Your task to perform on an android device: turn on the 24-hour format for clock Image 0: 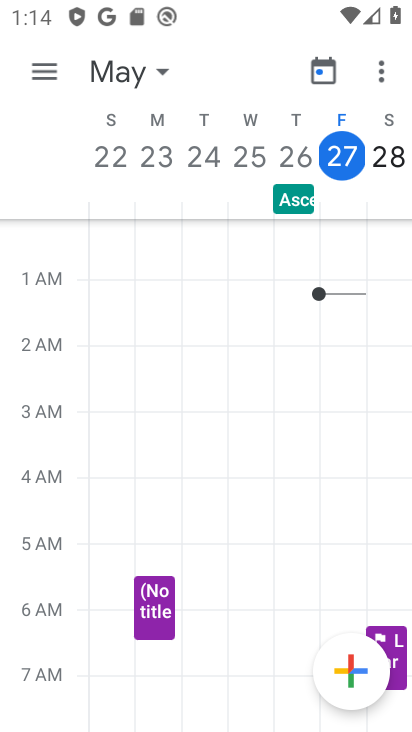
Step 0: press back button
Your task to perform on an android device: turn on the 24-hour format for clock Image 1: 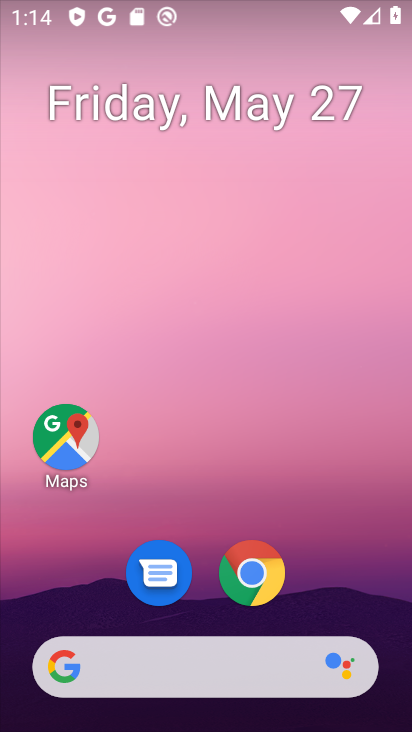
Step 1: drag from (190, 617) to (184, 35)
Your task to perform on an android device: turn on the 24-hour format for clock Image 2: 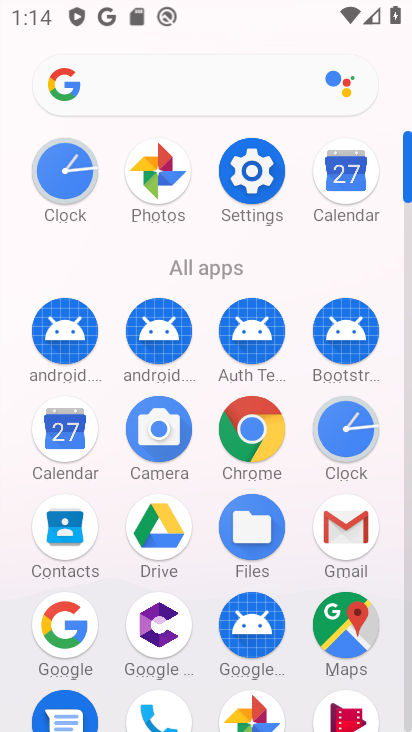
Step 2: click (337, 439)
Your task to perform on an android device: turn on the 24-hour format for clock Image 3: 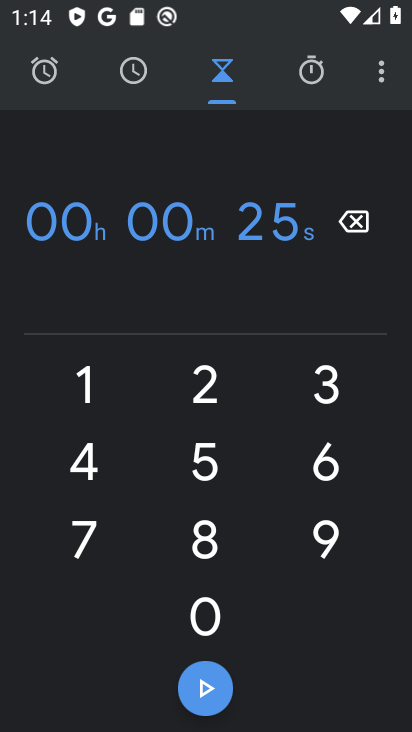
Step 3: click (368, 71)
Your task to perform on an android device: turn on the 24-hour format for clock Image 4: 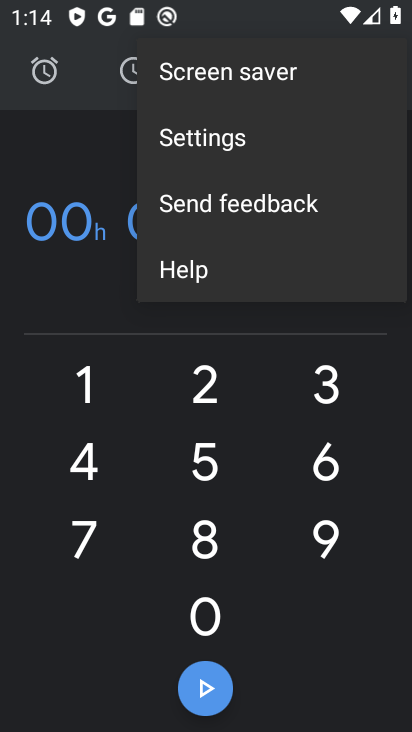
Step 4: click (216, 135)
Your task to perform on an android device: turn on the 24-hour format for clock Image 5: 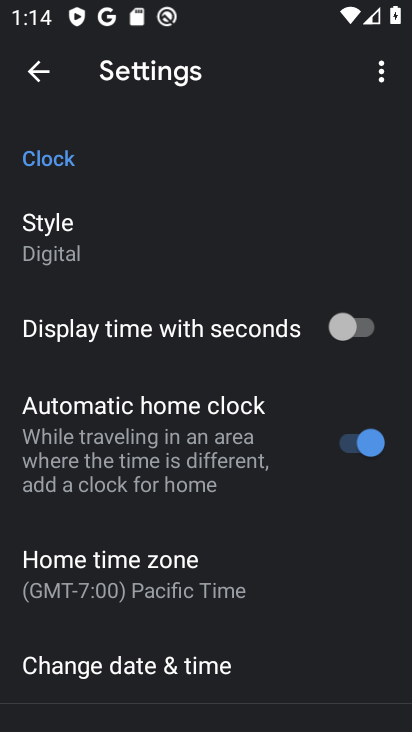
Step 5: click (196, 655)
Your task to perform on an android device: turn on the 24-hour format for clock Image 6: 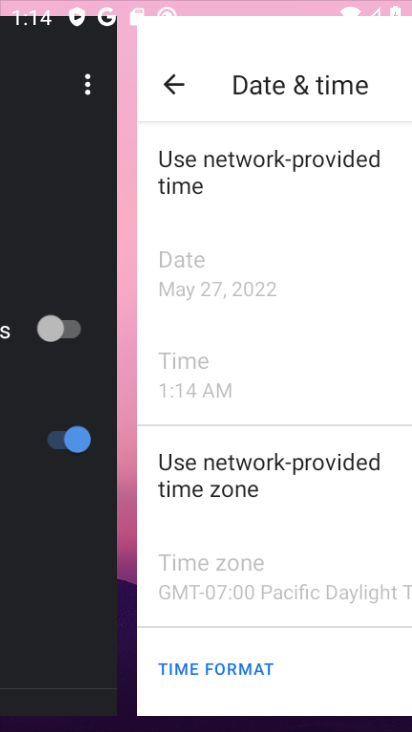
Step 6: drag from (195, 653) to (206, 0)
Your task to perform on an android device: turn on the 24-hour format for clock Image 7: 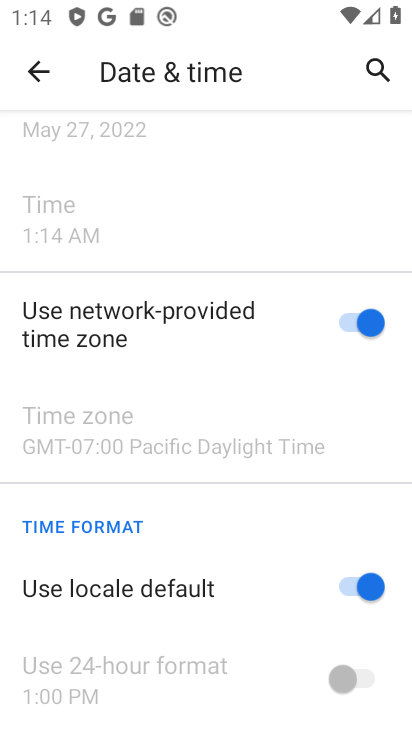
Step 7: click (352, 591)
Your task to perform on an android device: turn on the 24-hour format for clock Image 8: 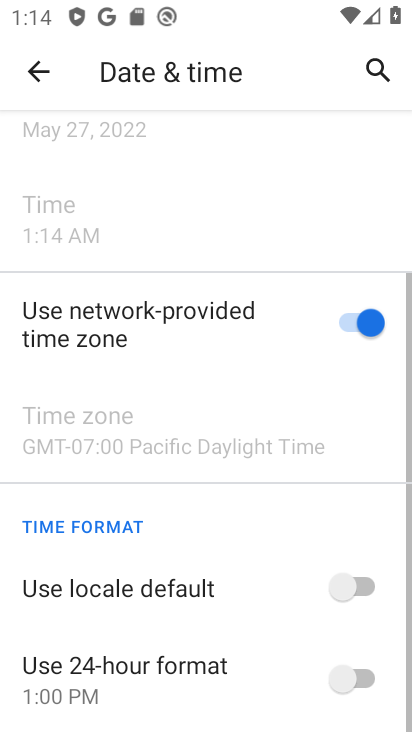
Step 8: click (355, 680)
Your task to perform on an android device: turn on the 24-hour format for clock Image 9: 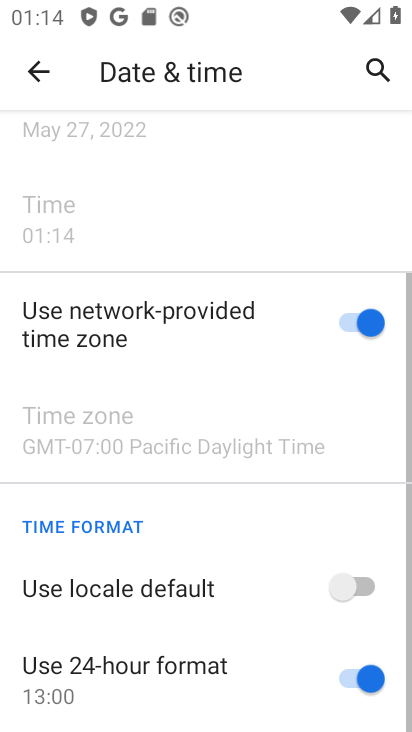
Step 9: task complete